Your task to perform on an android device: open chrome privacy settings Image 0: 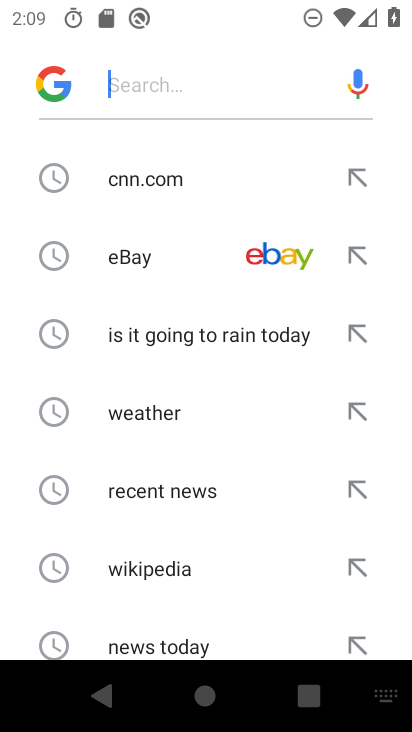
Step 0: press home button
Your task to perform on an android device: open chrome privacy settings Image 1: 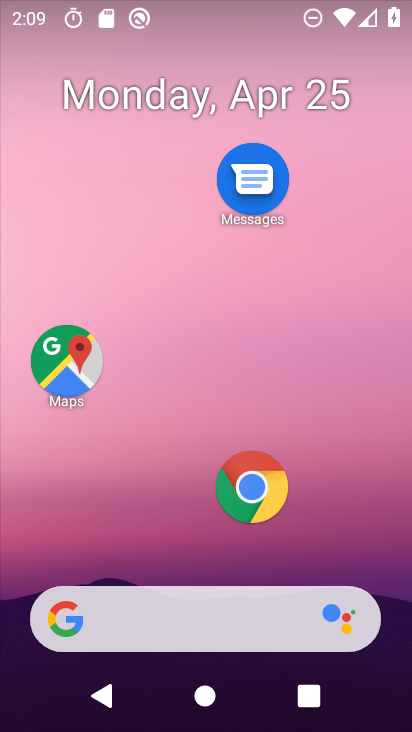
Step 1: click (262, 491)
Your task to perform on an android device: open chrome privacy settings Image 2: 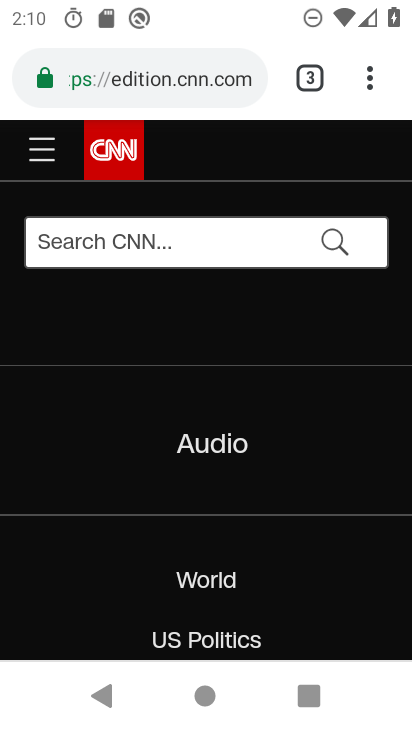
Step 2: drag from (362, 69) to (155, 551)
Your task to perform on an android device: open chrome privacy settings Image 3: 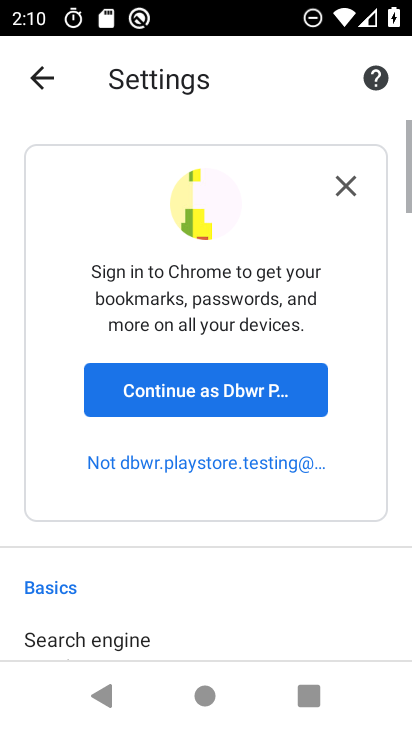
Step 3: drag from (194, 623) to (304, 59)
Your task to perform on an android device: open chrome privacy settings Image 4: 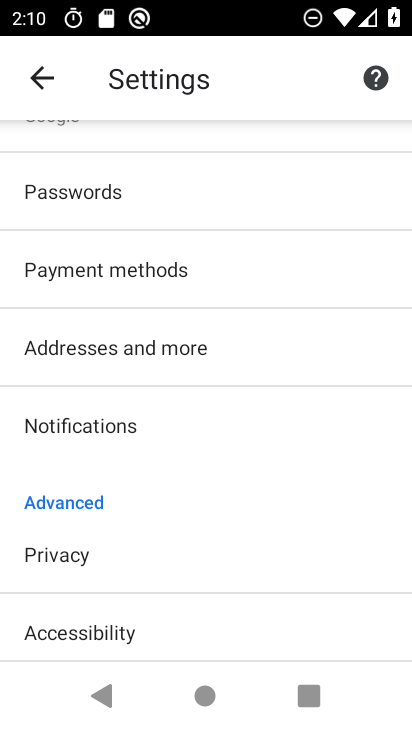
Step 4: click (195, 566)
Your task to perform on an android device: open chrome privacy settings Image 5: 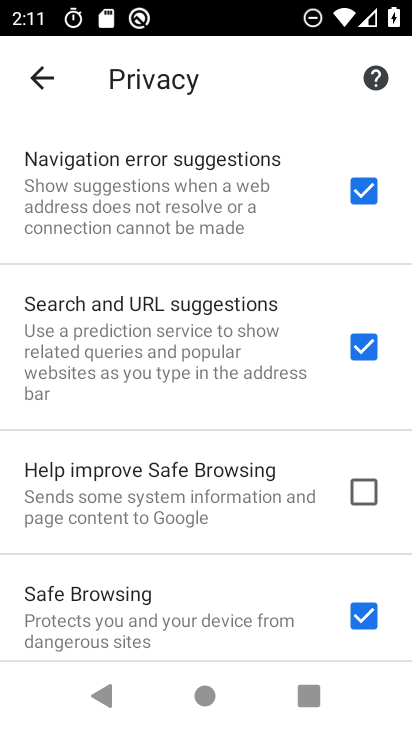
Step 5: task complete